Your task to perform on an android device: What's a good restaurant in Los Angeles? Image 0: 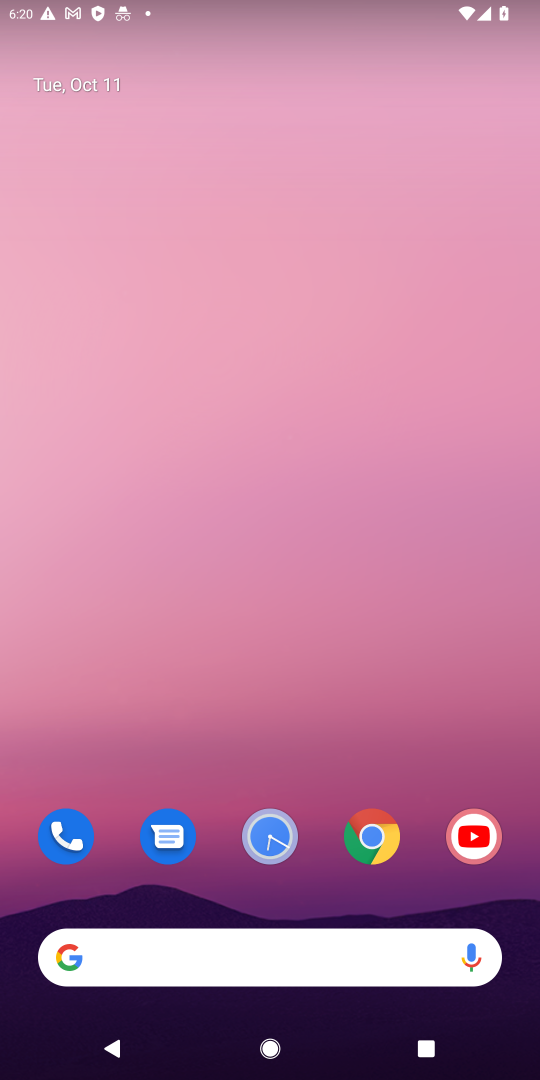
Step 0: click (368, 841)
Your task to perform on an android device: What's a good restaurant in Los Angeles? Image 1: 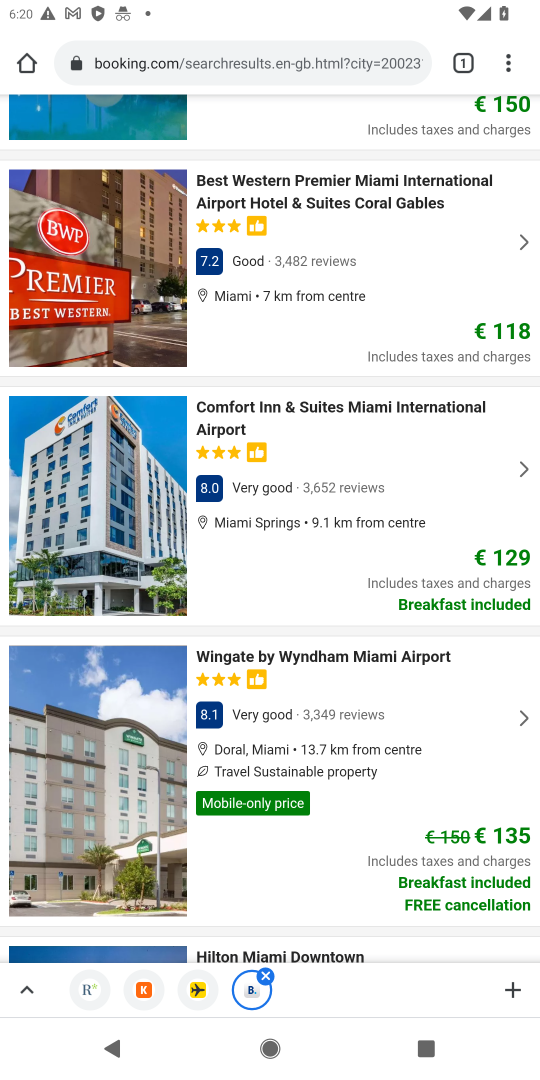
Step 1: click (195, 43)
Your task to perform on an android device: What's a good restaurant in Los Angeles? Image 2: 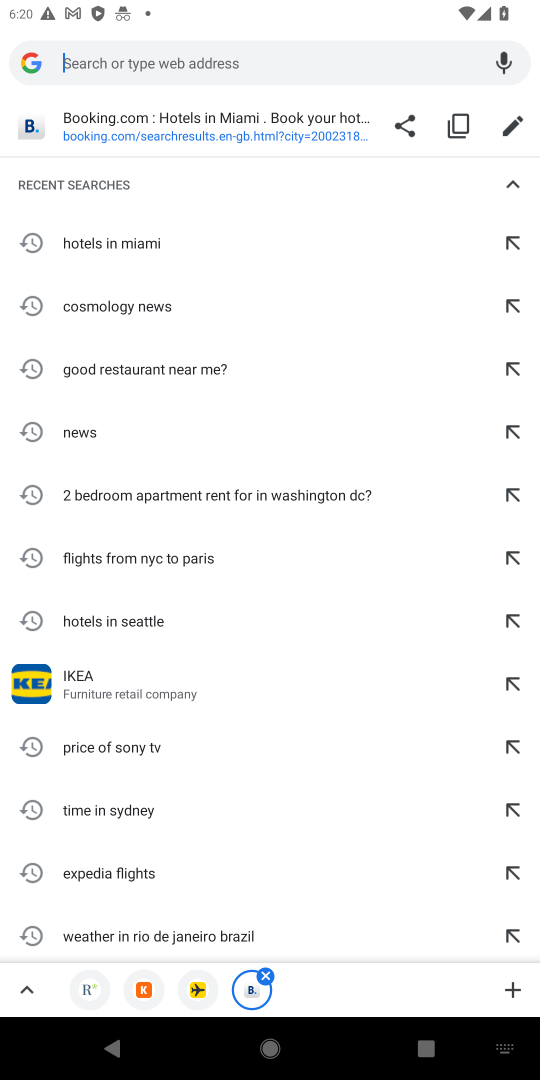
Step 2: type "good restaurants in los angeles"
Your task to perform on an android device: What's a good restaurant in Los Angeles? Image 3: 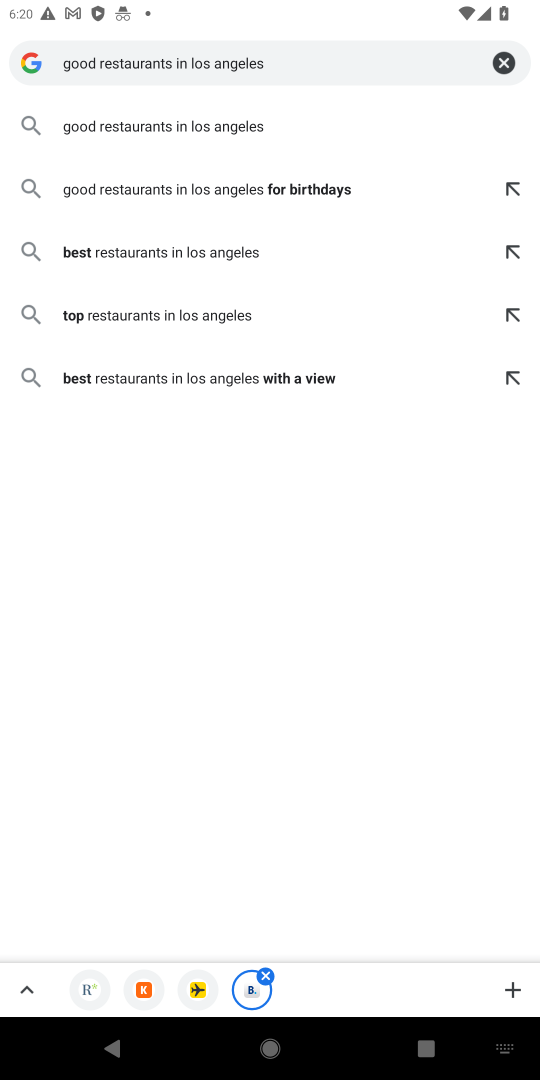
Step 3: click (121, 124)
Your task to perform on an android device: What's a good restaurant in Los Angeles? Image 4: 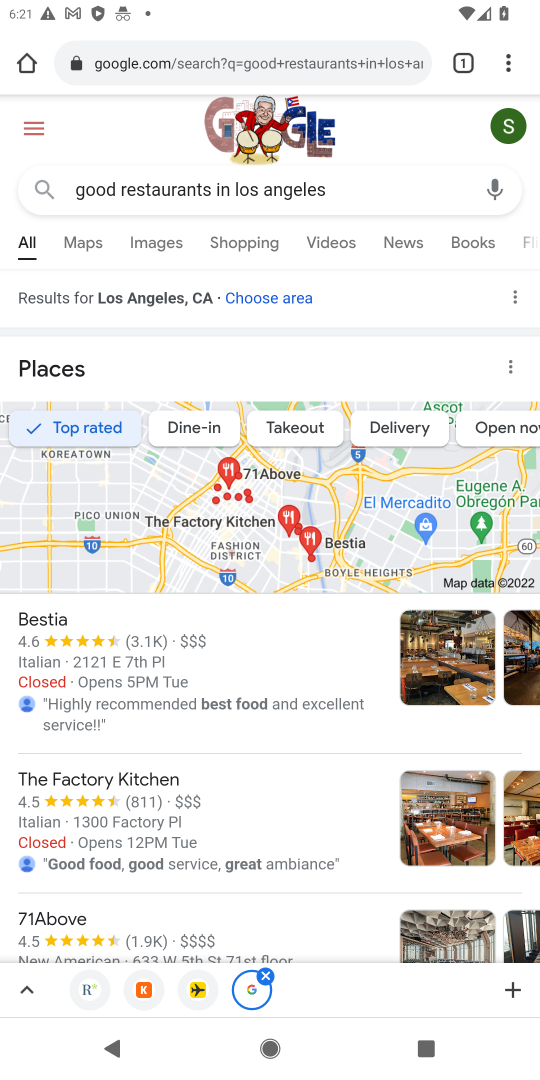
Step 4: drag from (215, 624) to (251, 419)
Your task to perform on an android device: What's a good restaurant in Los Angeles? Image 5: 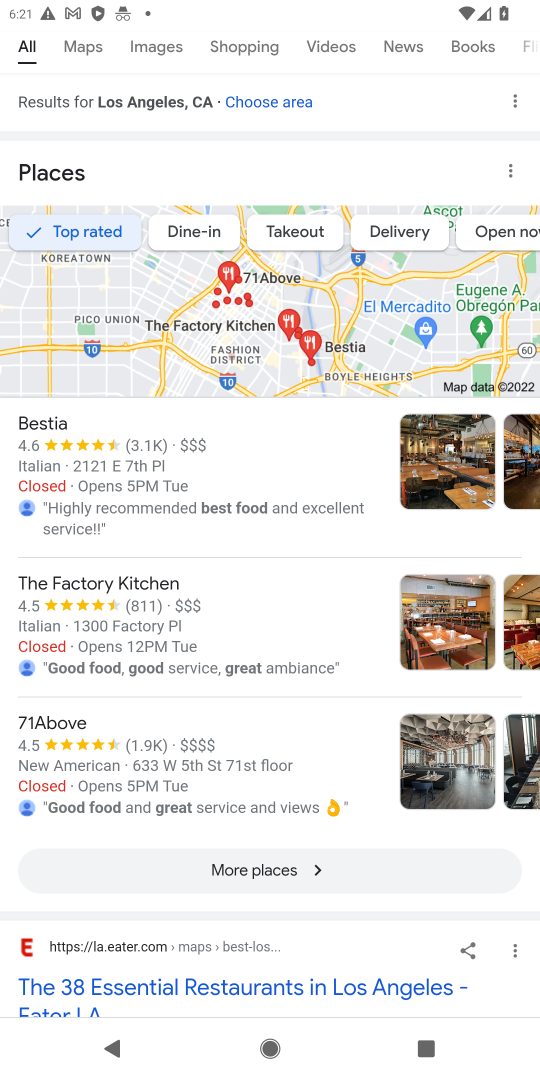
Step 5: drag from (308, 693) to (312, 451)
Your task to perform on an android device: What's a good restaurant in Los Angeles? Image 6: 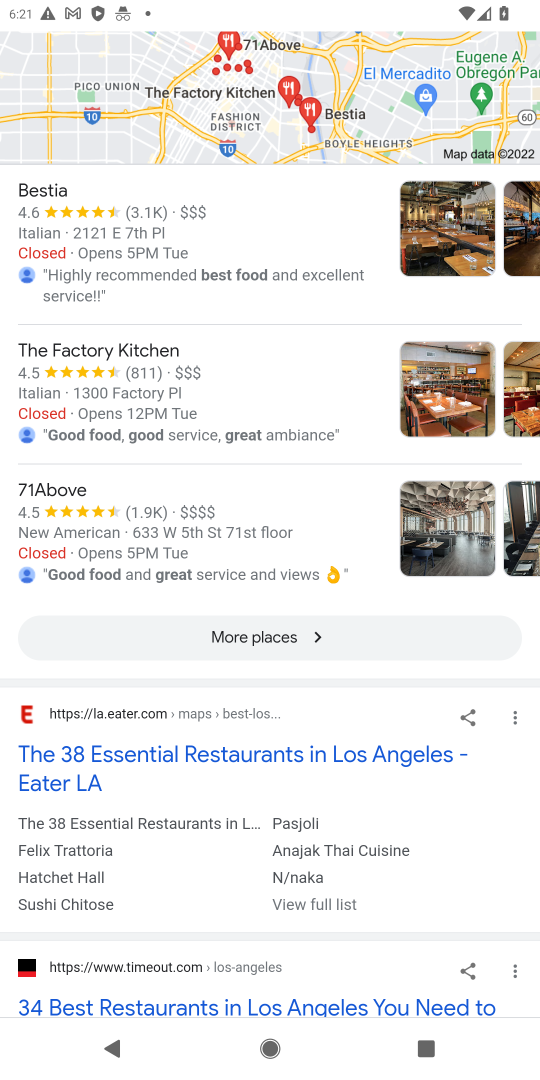
Step 6: click (128, 755)
Your task to perform on an android device: What's a good restaurant in Los Angeles? Image 7: 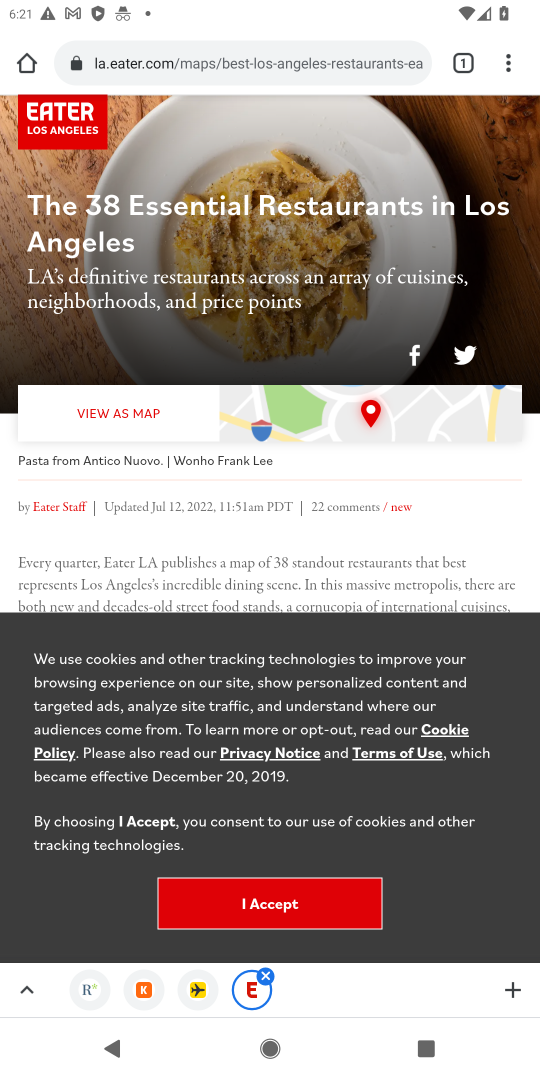
Step 7: click (278, 906)
Your task to perform on an android device: What's a good restaurant in Los Angeles? Image 8: 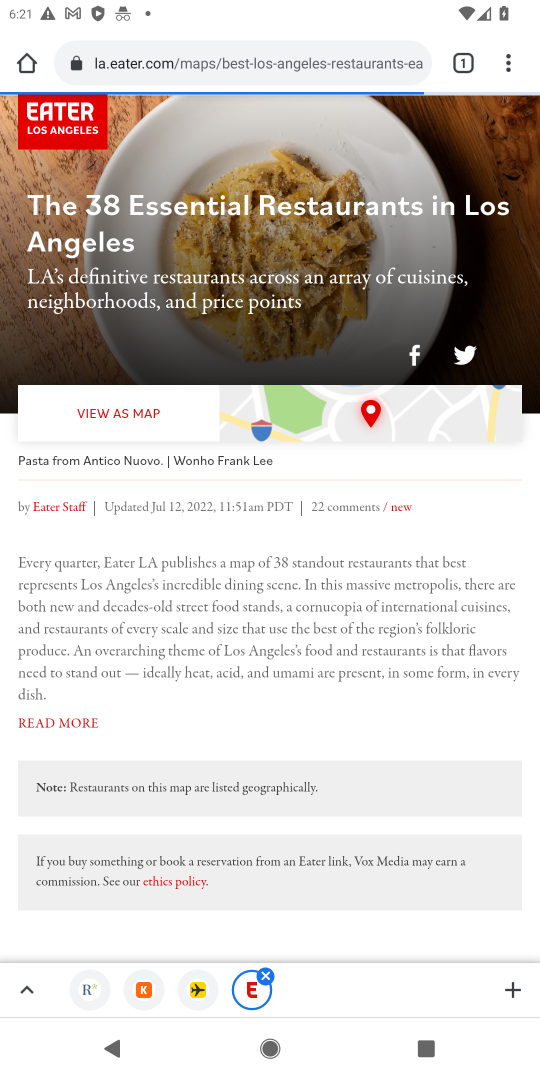
Step 8: task complete